Your task to perform on an android device: Open Google Chrome and click the shortcut for Amazon.com Image 0: 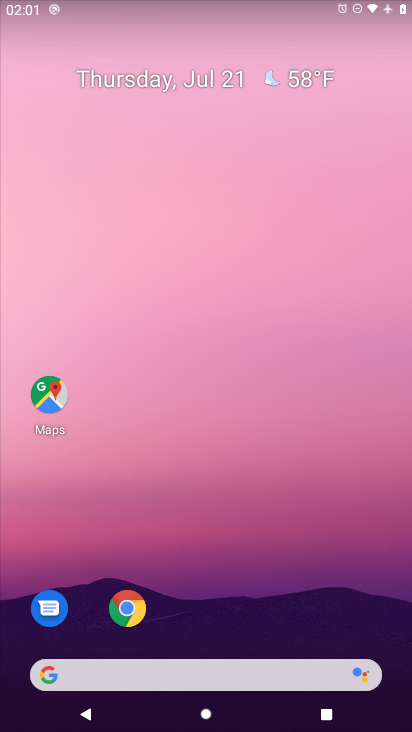
Step 0: press home button
Your task to perform on an android device: Open Google Chrome and click the shortcut for Amazon.com Image 1: 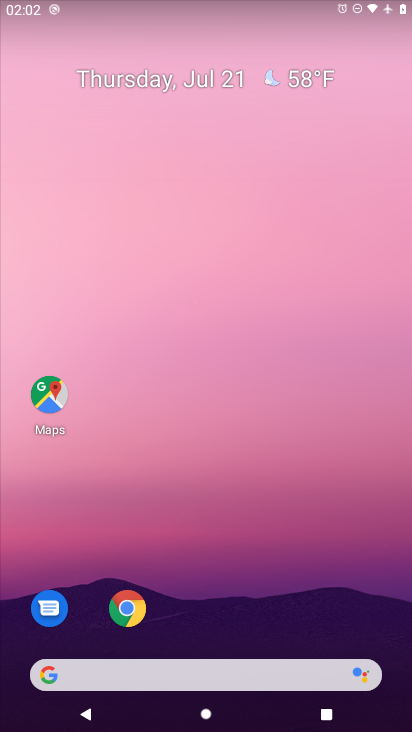
Step 1: drag from (232, 630) to (298, 114)
Your task to perform on an android device: Open Google Chrome and click the shortcut for Amazon.com Image 2: 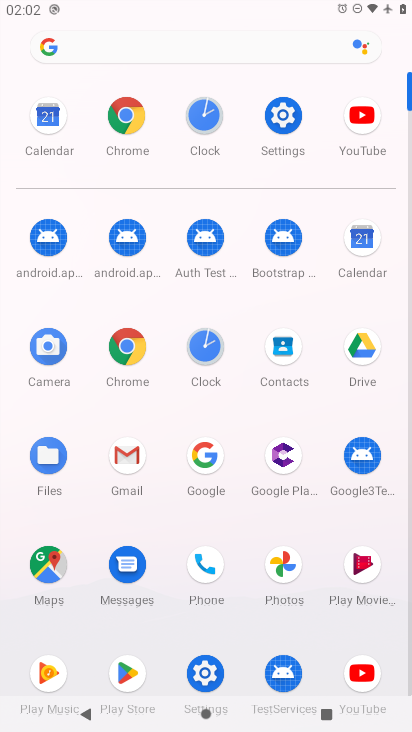
Step 2: click (121, 118)
Your task to perform on an android device: Open Google Chrome and click the shortcut for Amazon.com Image 3: 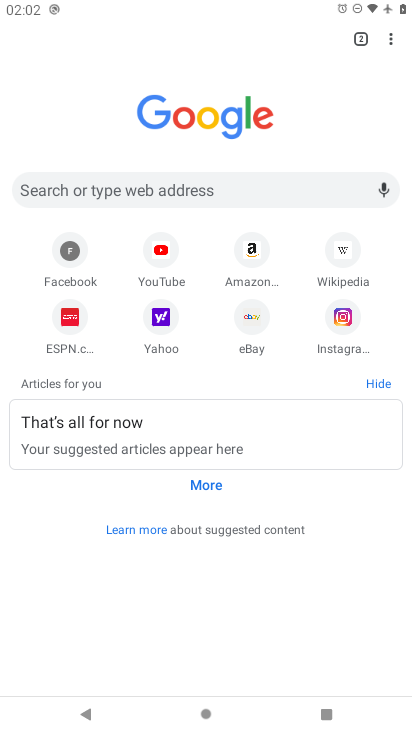
Step 3: click (250, 261)
Your task to perform on an android device: Open Google Chrome and click the shortcut for Amazon.com Image 4: 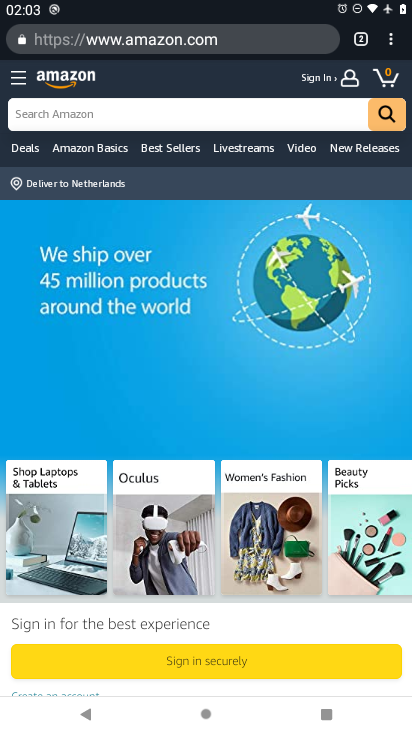
Step 4: task complete